Your task to perform on an android device: Play the last video I watched on Youtube Image 0: 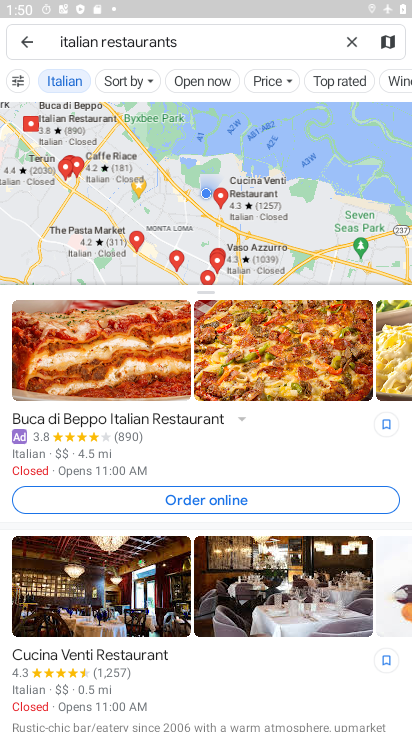
Step 0: press home button
Your task to perform on an android device: Play the last video I watched on Youtube Image 1: 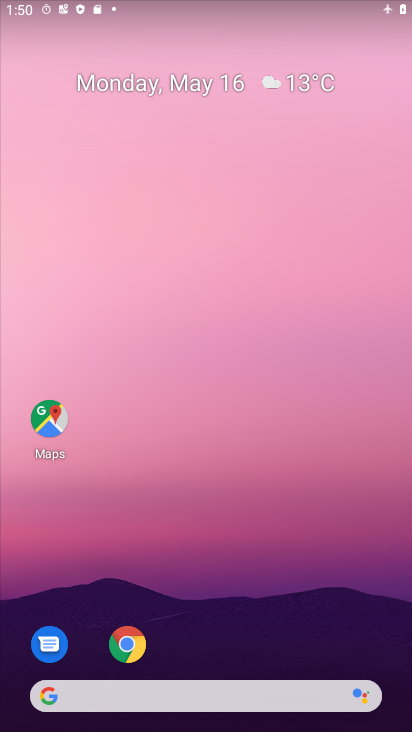
Step 1: drag from (221, 682) to (246, 1)
Your task to perform on an android device: Play the last video I watched on Youtube Image 2: 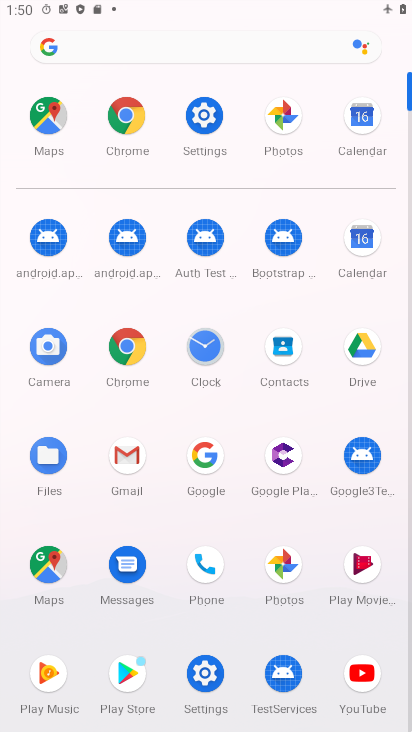
Step 2: click (353, 687)
Your task to perform on an android device: Play the last video I watched on Youtube Image 3: 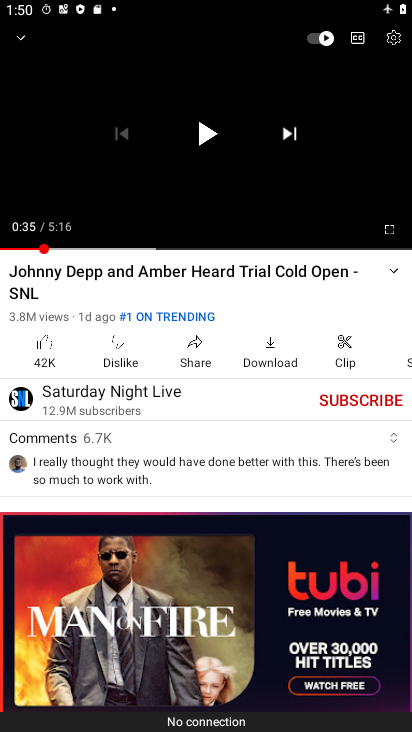
Step 3: press back button
Your task to perform on an android device: Play the last video I watched on Youtube Image 4: 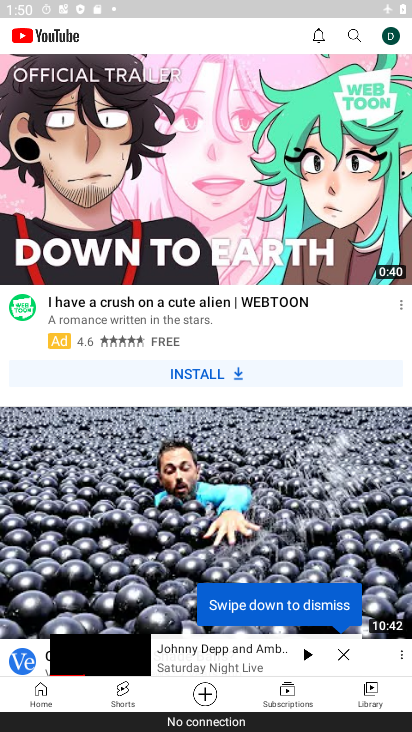
Step 4: click (344, 651)
Your task to perform on an android device: Play the last video I watched on Youtube Image 5: 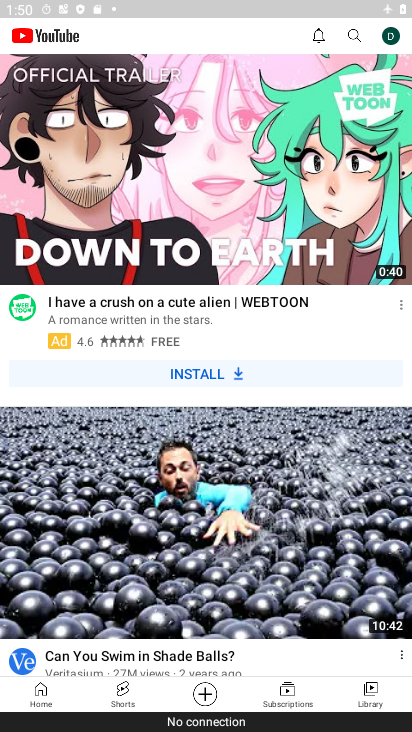
Step 5: click (378, 704)
Your task to perform on an android device: Play the last video I watched on Youtube Image 6: 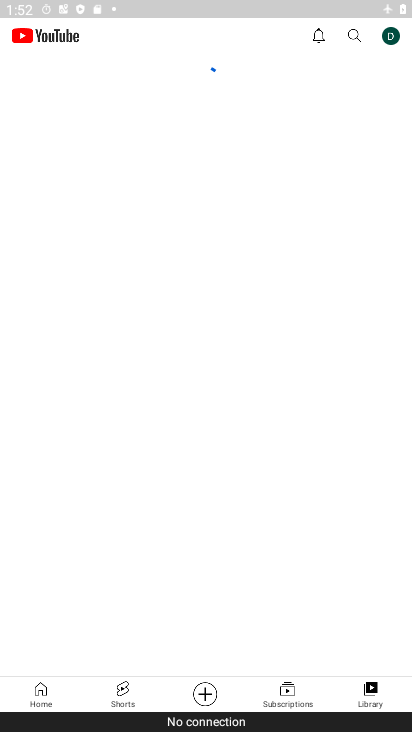
Step 6: task complete